Your task to perform on an android device: read, delete, or share a saved page in the chrome app Image 0: 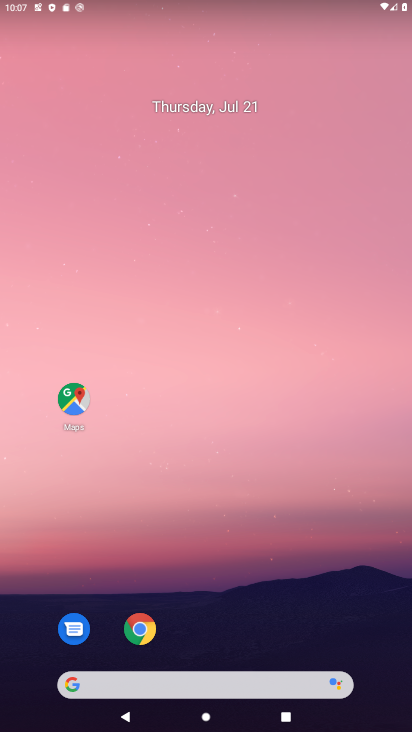
Step 0: click (119, 639)
Your task to perform on an android device: read, delete, or share a saved page in the chrome app Image 1: 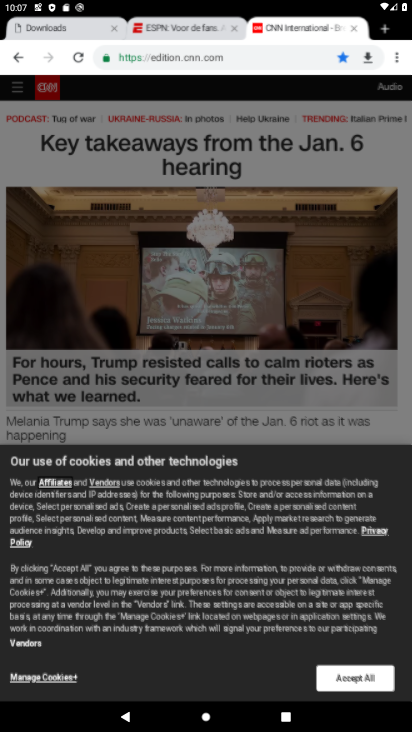
Step 1: click (409, 53)
Your task to perform on an android device: read, delete, or share a saved page in the chrome app Image 2: 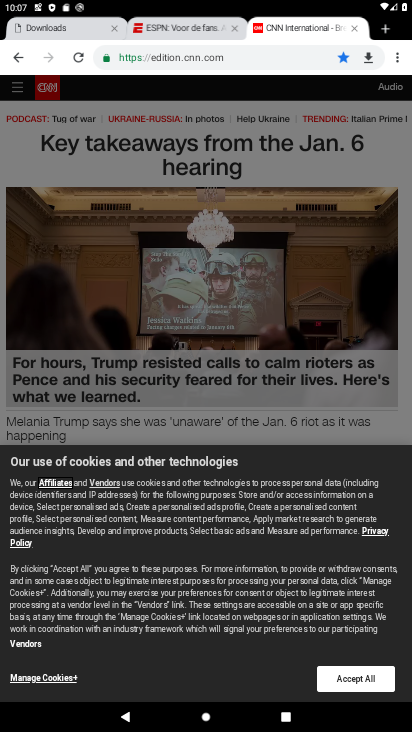
Step 2: click (401, 58)
Your task to perform on an android device: read, delete, or share a saved page in the chrome app Image 3: 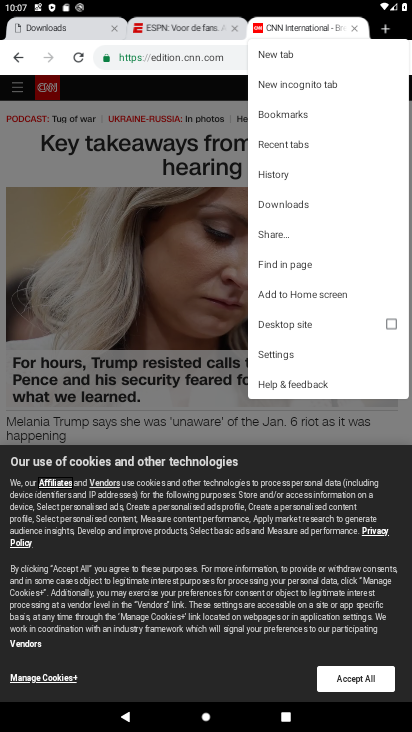
Step 3: click (320, 208)
Your task to perform on an android device: read, delete, or share a saved page in the chrome app Image 4: 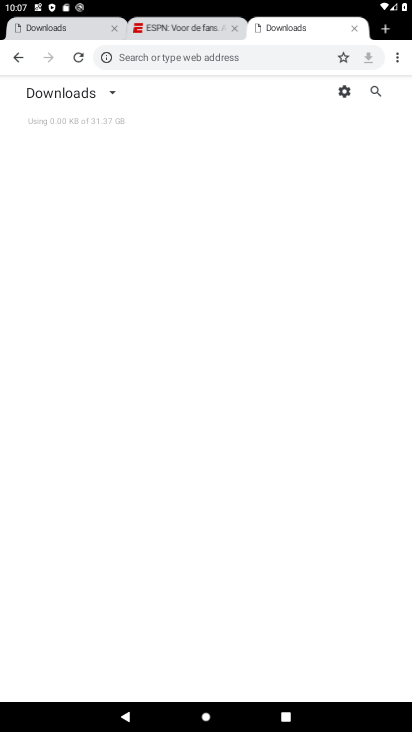
Step 4: task complete